Your task to perform on an android device: Search for hotels in Buenos aires Image 0: 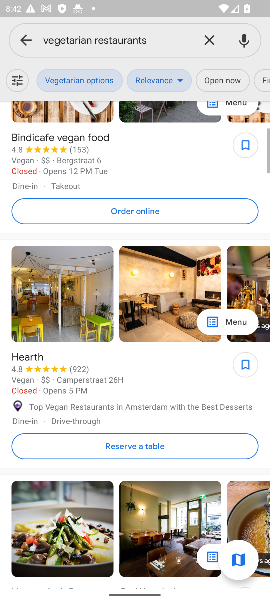
Step 0: press home button
Your task to perform on an android device: Search for hotels in Buenos aires Image 1: 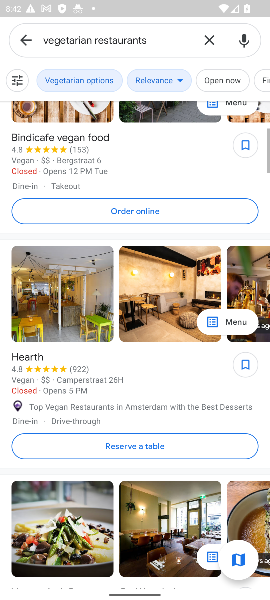
Step 1: press home button
Your task to perform on an android device: Search for hotels in Buenos aires Image 2: 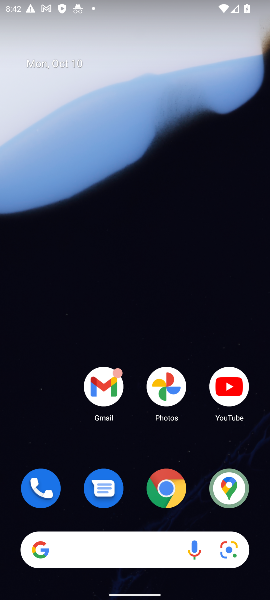
Step 2: drag from (132, 461) to (182, 0)
Your task to perform on an android device: Search for hotels in Buenos aires Image 3: 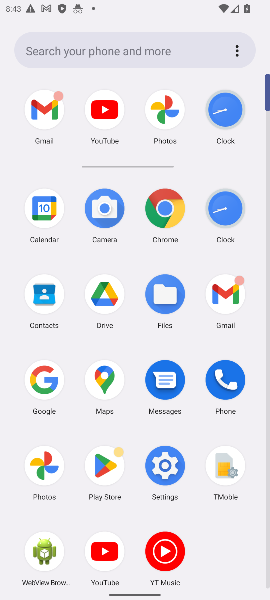
Step 3: click (163, 207)
Your task to perform on an android device: Search for hotels in Buenos aires Image 4: 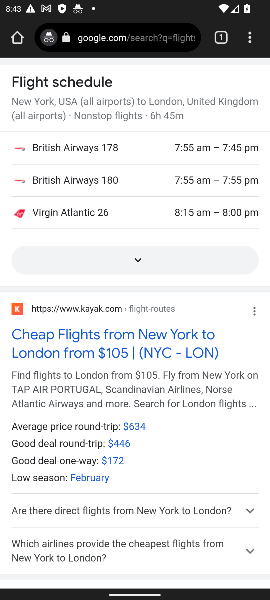
Step 4: click (124, 34)
Your task to perform on an android device: Search for hotels in Buenos aires Image 5: 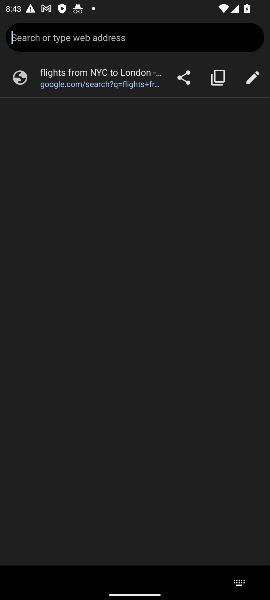
Step 5: type "hotels in Buenos aires"
Your task to perform on an android device: Search for hotels in Buenos aires Image 6: 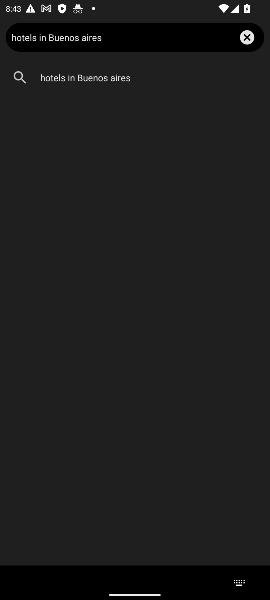
Step 6: press enter
Your task to perform on an android device: Search for hotels in Buenos aires Image 7: 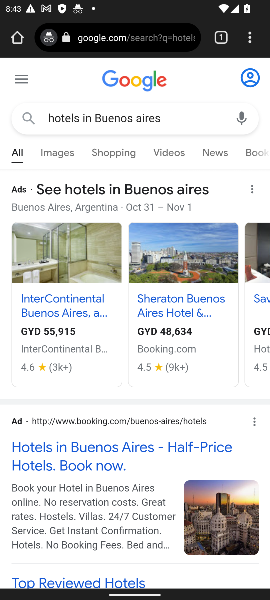
Step 7: task complete